Your task to perform on an android device: turn notification dots off Image 0: 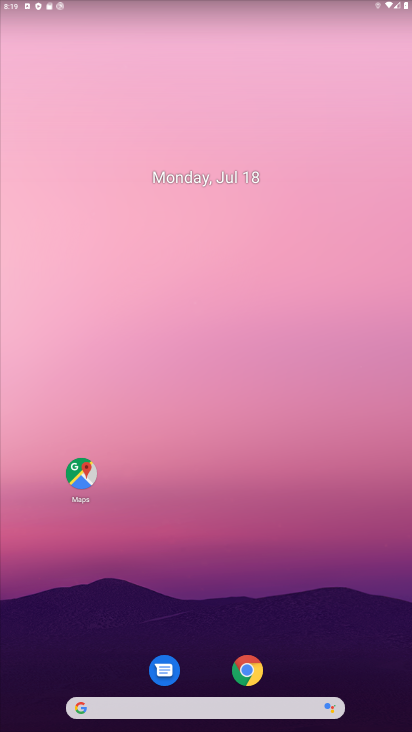
Step 0: drag from (196, 639) to (245, 93)
Your task to perform on an android device: turn notification dots off Image 1: 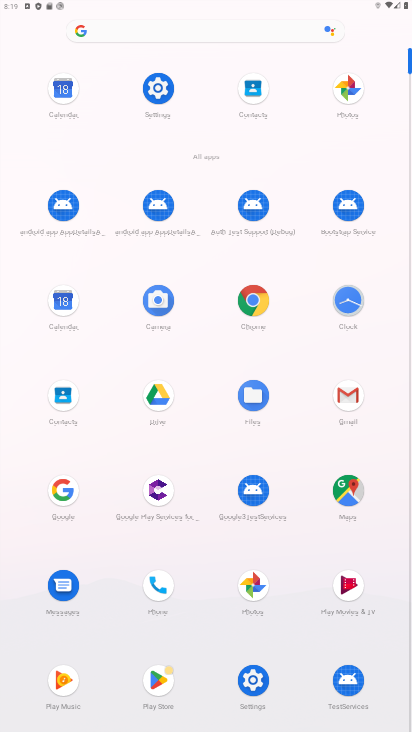
Step 1: click (157, 89)
Your task to perform on an android device: turn notification dots off Image 2: 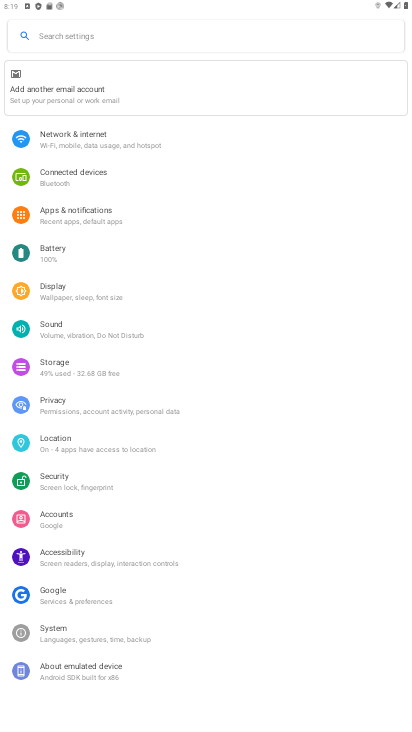
Step 2: click (63, 219)
Your task to perform on an android device: turn notification dots off Image 3: 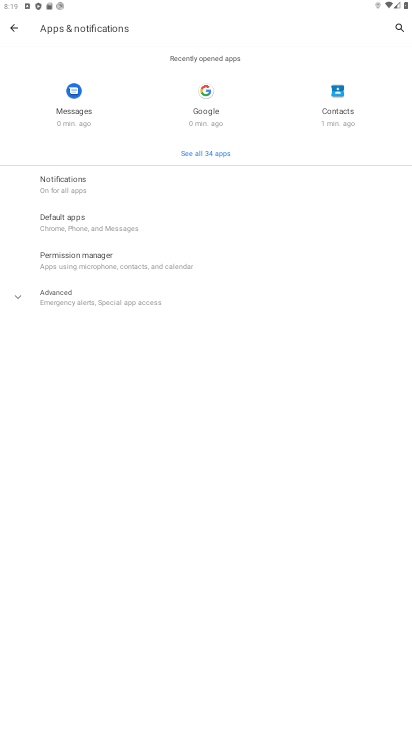
Step 3: click (63, 181)
Your task to perform on an android device: turn notification dots off Image 4: 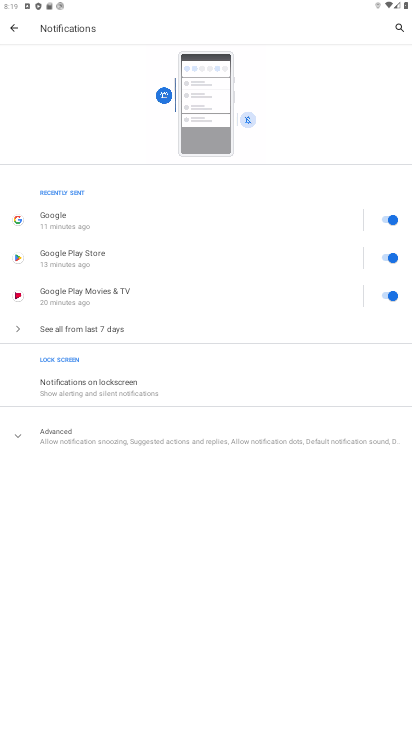
Step 4: click (61, 448)
Your task to perform on an android device: turn notification dots off Image 5: 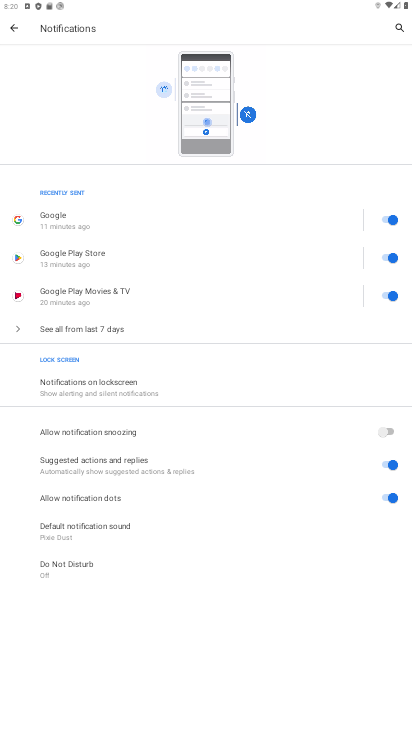
Step 5: click (390, 498)
Your task to perform on an android device: turn notification dots off Image 6: 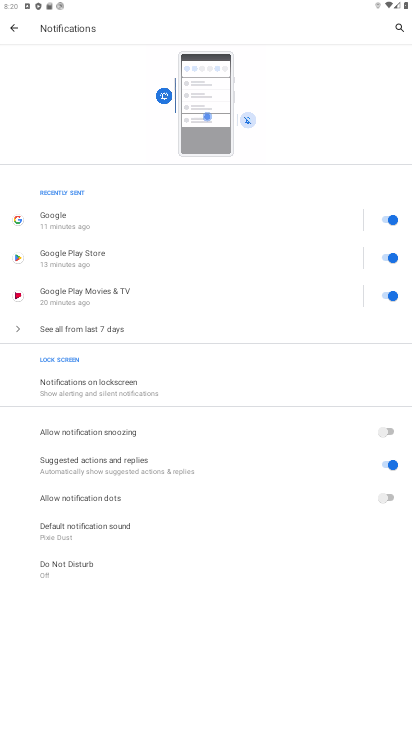
Step 6: task complete